Your task to perform on an android device: uninstall "Viber Messenger" Image 0: 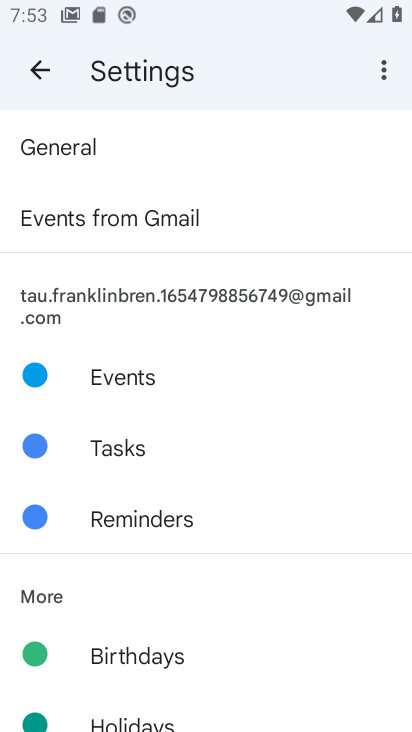
Step 0: press home button
Your task to perform on an android device: uninstall "Viber Messenger" Image 1: 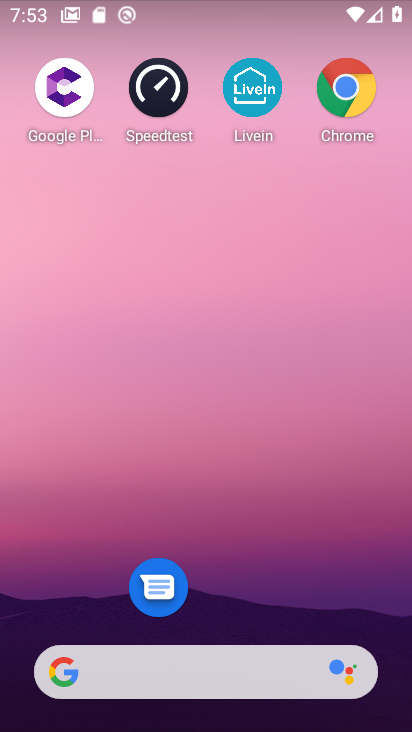
Step 1: drag from (272, 628) to (259, 180)
Your task to perform on an android device: uninstall "Viber Messenger" Image 2: 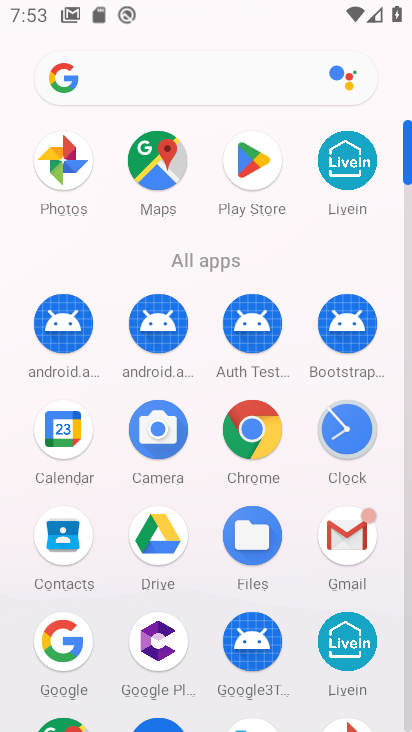
Step 2: drag from (244, 148) to (94, 350)
Your task to perform on an android device: uninstall "Viber Messenger" Image 3: 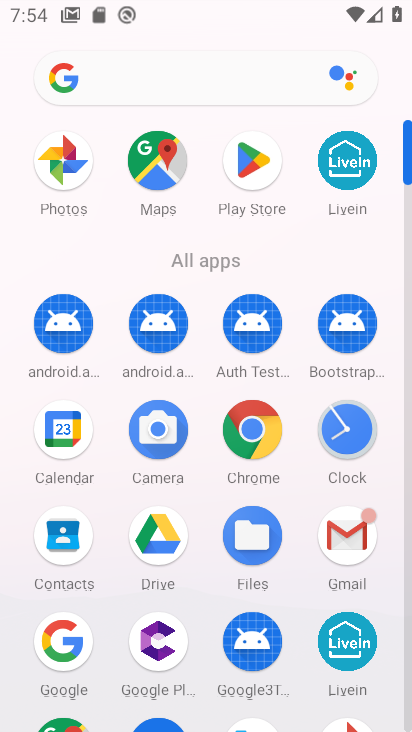
Step 3: drag from (255, 192) to (91, 327)
Your task to perform on an android device: uninstall "Viber Messenger" Image 4: 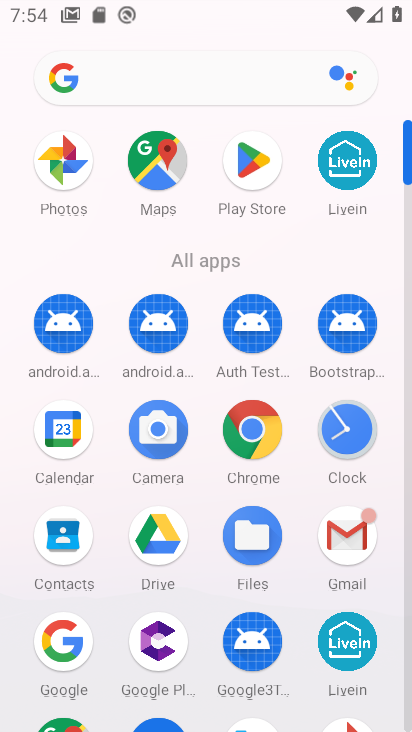
Step 4: drag from (257, 167) to (35, 266)
Your task to perform on an android device: uninstall "Viber Messenger" Image 5: 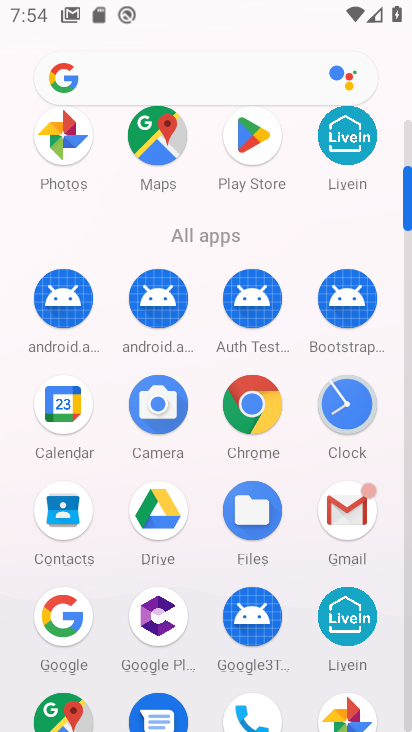
Step 5: click (247, 186)
Your task to perform on an android device: uninstall "Viber Messenger" Image 6: 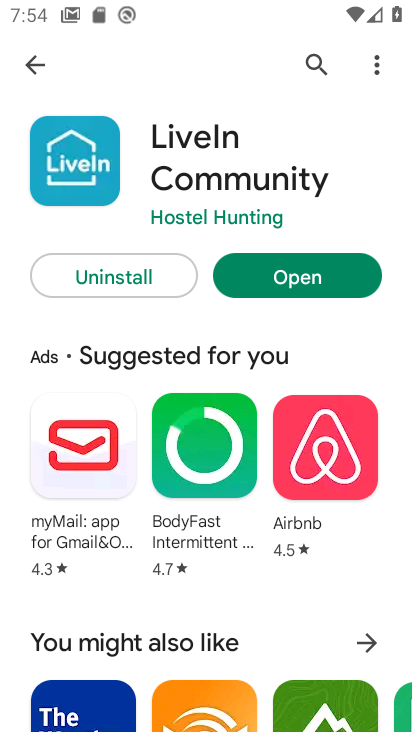
Step 6: click (303, 62)
Your task to perform on an android device: uninstall "Viber Messenger" Image 7: 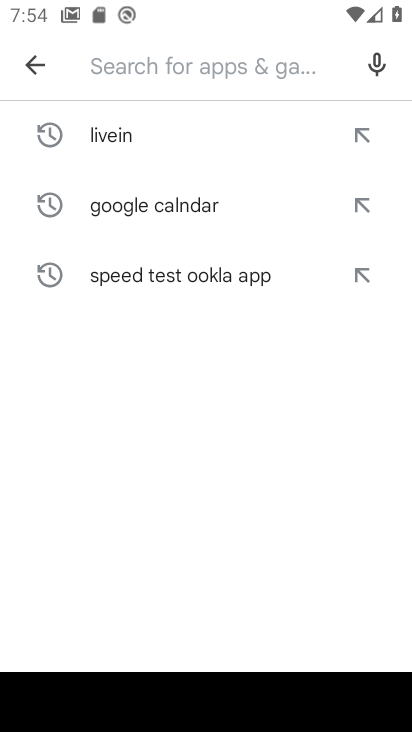
Step 7: type "viber"
Your task to perform on an android device: uninstall "Viber Messenger" Image 8: 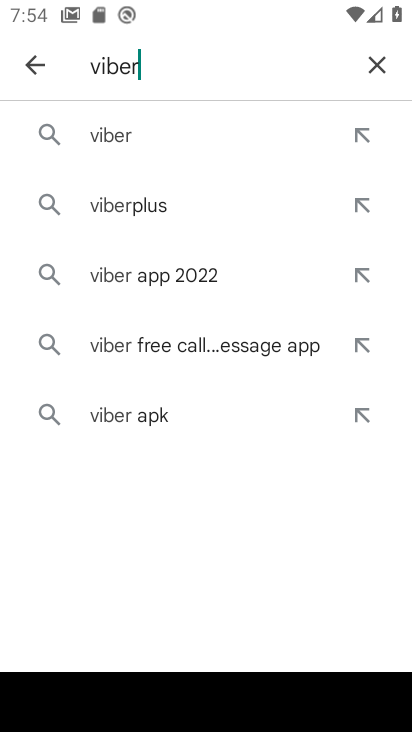
Step 8: click (146, 142)
Your task to perform on an android device: uninstall "Viber Messenger" Image 9: 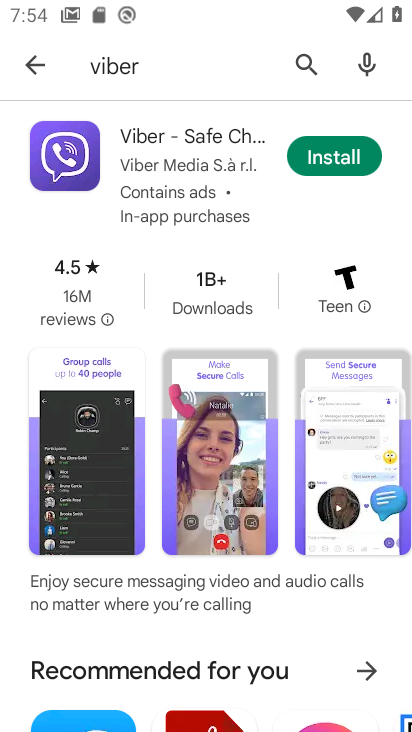
Step 9: click (334, 145)
Your task to perform on an android device: uninstall "Viber Messenger" Image 10: 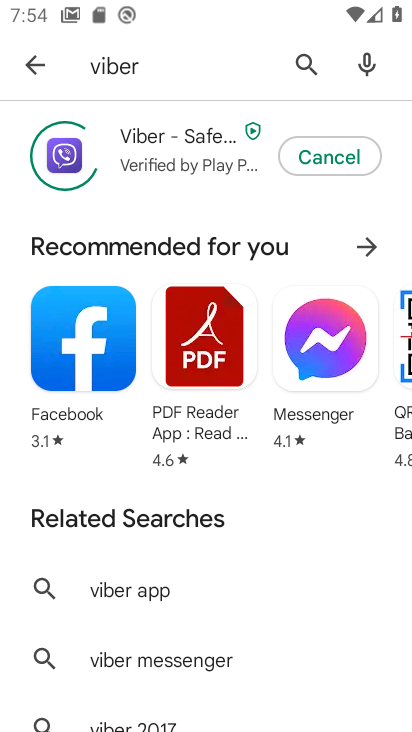
Step 10: task complete